Your task to perform on an android device: toggle javascript in the chrome app Image 0: 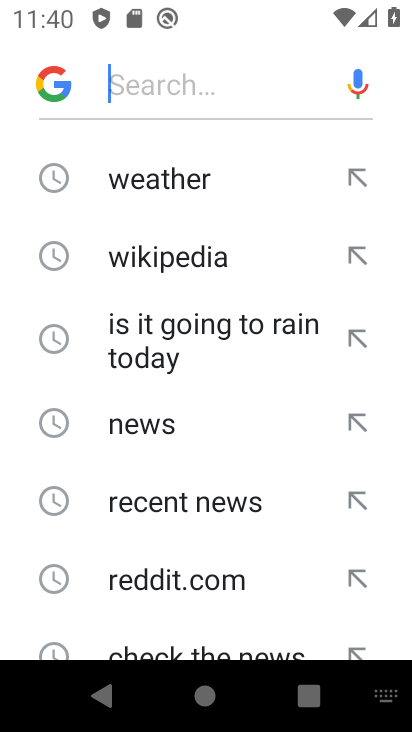
Step 0: press home button
Your task to perform on an android device: toggle javascript in the chrome app Image 1: 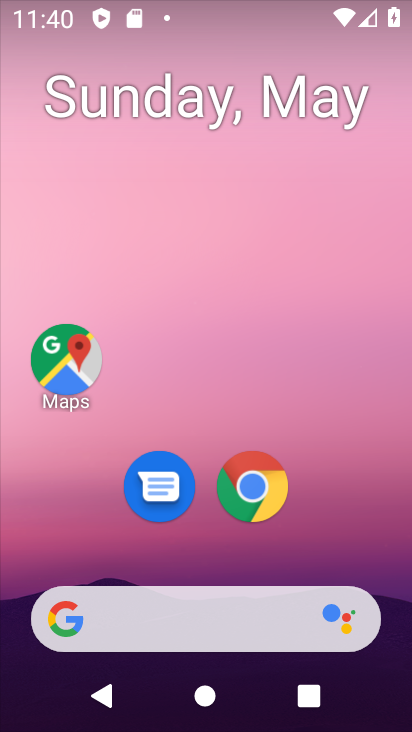
Step 1: click (271, 503)
Your task to perform on an android device: toggle javascript in the chrome app Image 2: 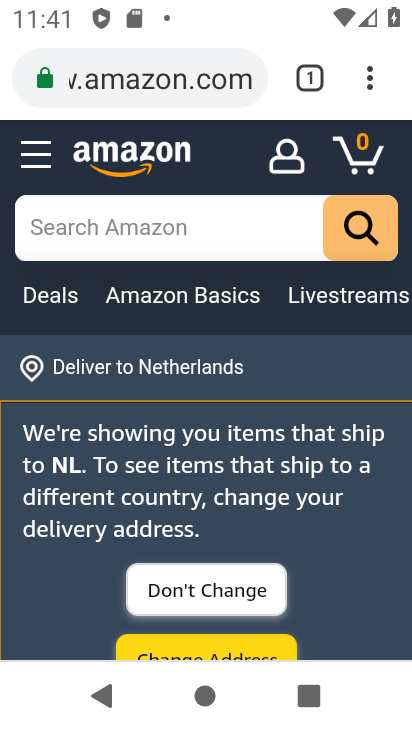
Step 2: click (370, 96)
Your task to perform on an android device: toggle javascript in the chrome app Image 3: 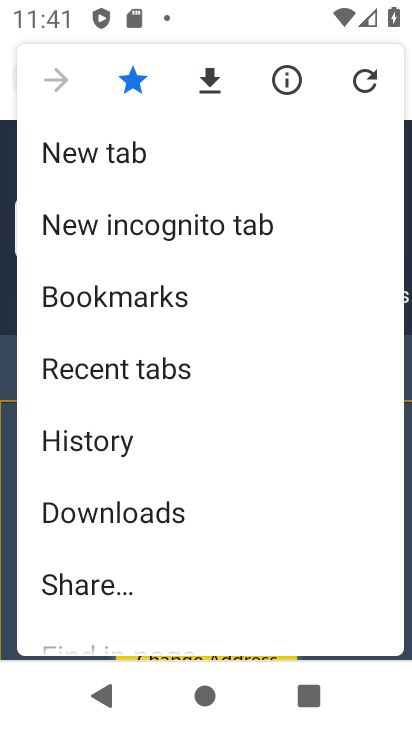
Step 3: drag from (226, 613) to (198, 137)
Your task to perform on an android device: toggle javascript in the chrome app Image 4: 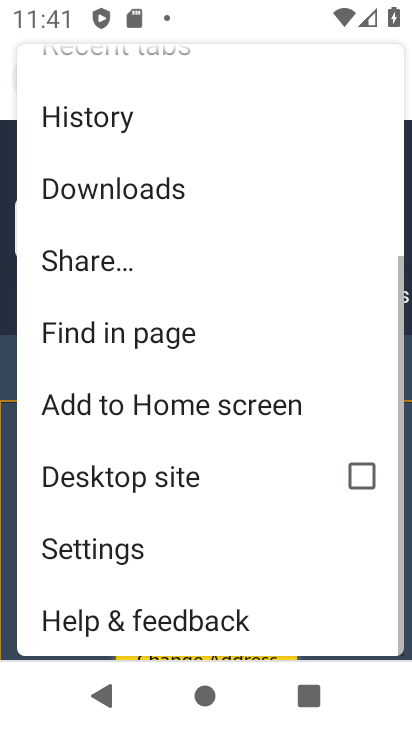
Step 4: click (183, 546)
Your task to perform on an android device: toggle javascript in the chrome app Image 5: 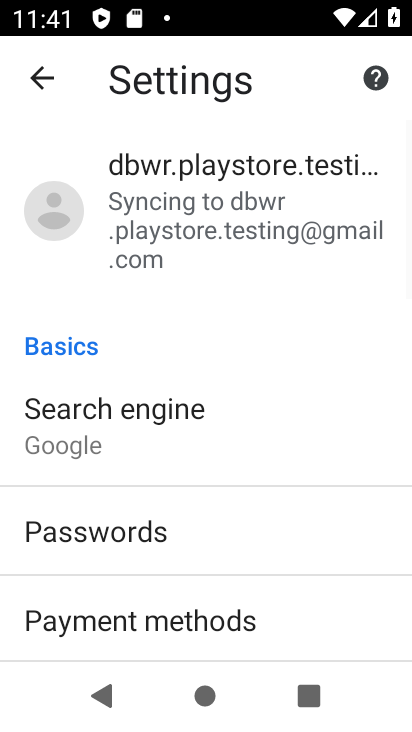
Step 5: drag from (278, 625) to (222, 168)
Your task to perform on an android device: toggle javascript in the chrome app Image 6: 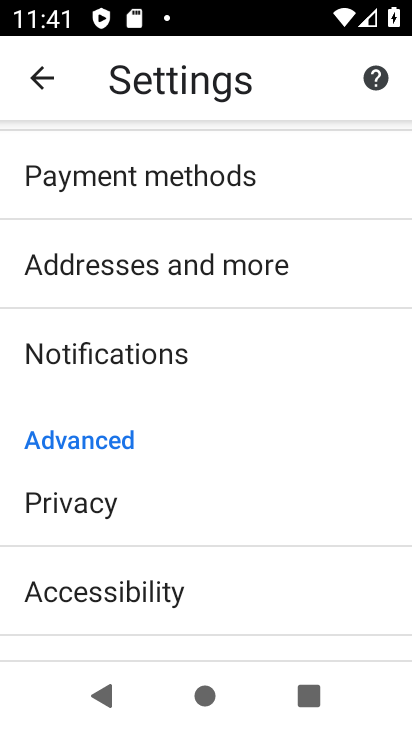
Step 6: drag from (282, 621) to (273, 396)
Your task to perform on an android device: toggle javascript in the chrome app Image 7: 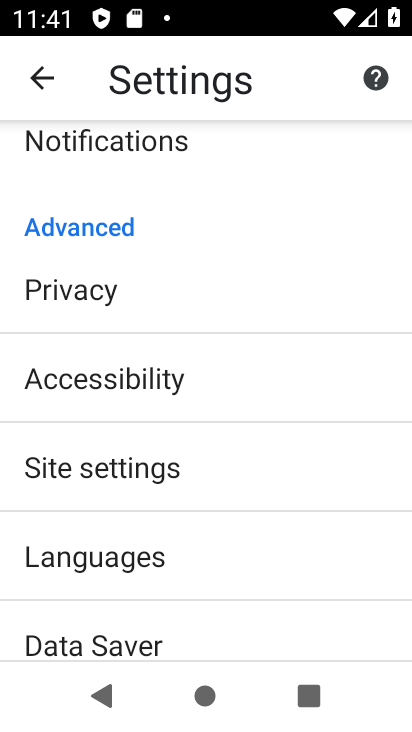
Step 7: click (274, 478)
Your task to perform on an android device: toggle javascript in the chrome app Image 8: 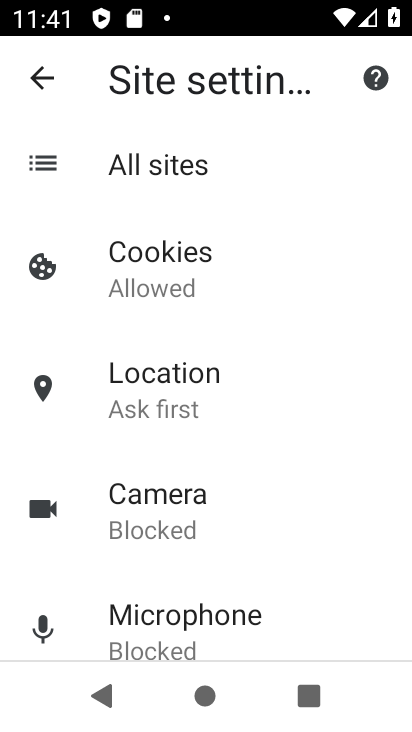
Step 8: drag from (305, 581) to (253, 229)
Your task to perform on an android device: toggle javascript in the chrome app Image 9: 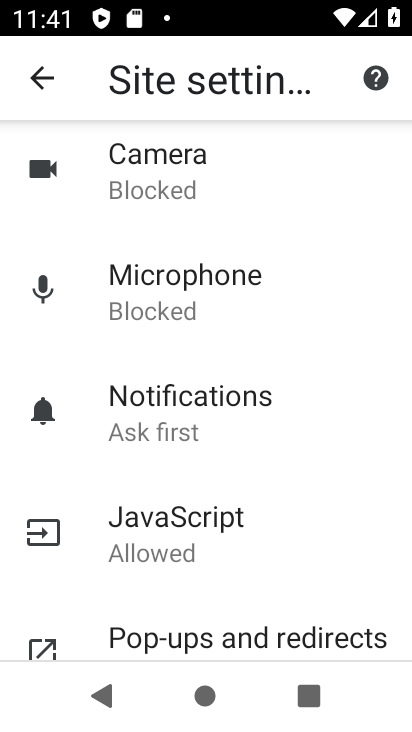
Step 9: click (257, 527)
Your task to perform on an android device: toggle javascript in the chrome app Image 10: 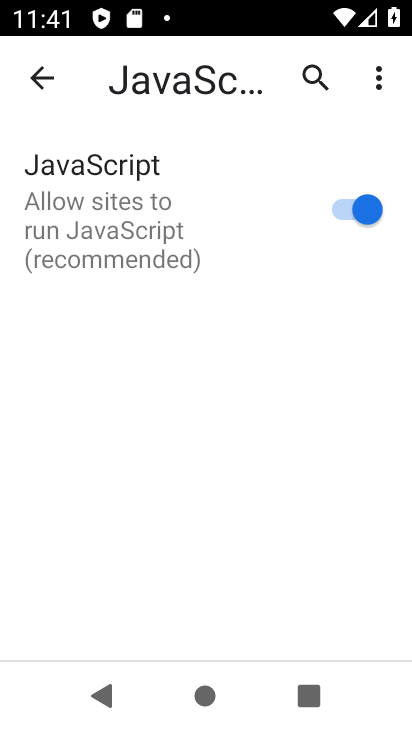
Step 10: click (346, 198)
Your task to perform on an android device: toggle javascript in the chrome app Image 11: 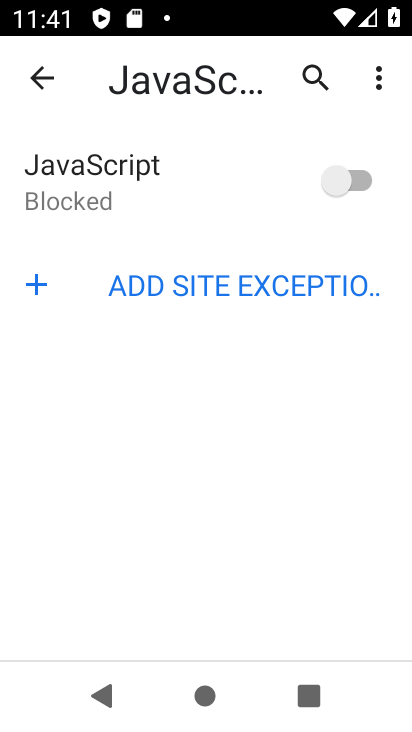
Step 11: task complete